Your task to perform on an android device: turn pop-ups on in chrome Image 0: 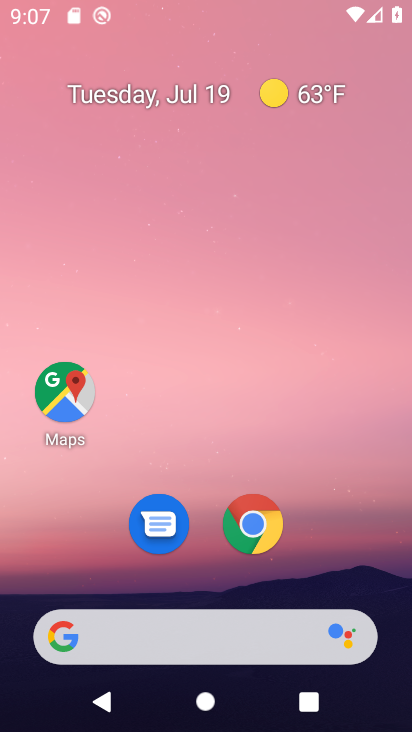
Step 0: press home button
Your task to perform on an android device: turn pop-ups on in chrome Image 1: 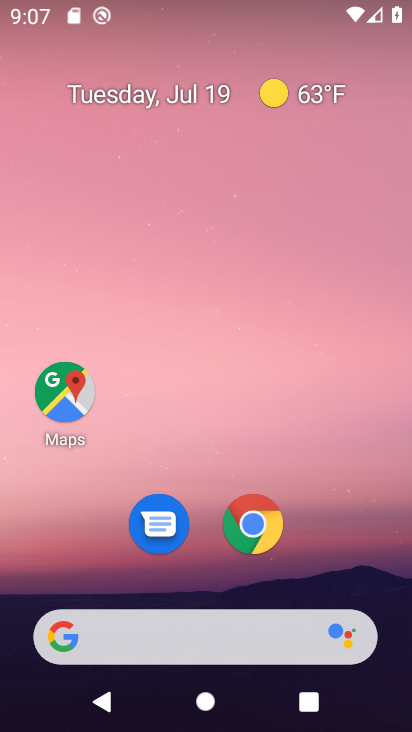
Step 1: click (252, 517)
Your task to perform on an android device: turn pop-ups on in chrome Image 2: 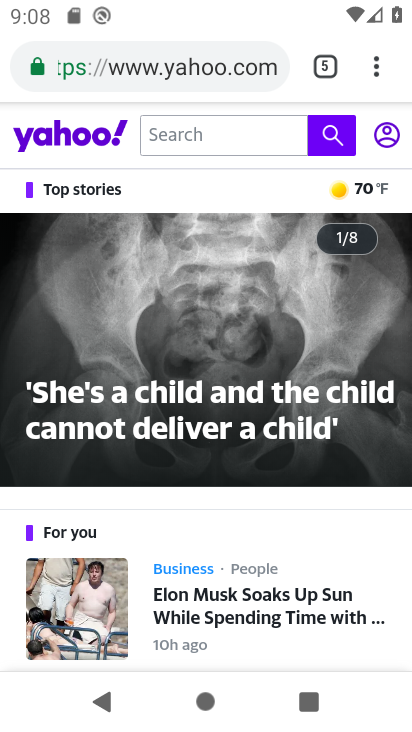
Step 2: drag from (374, 72) to (223, 524)
Your task to perform on an android device: turn pop-ups on in chrome Image 3: 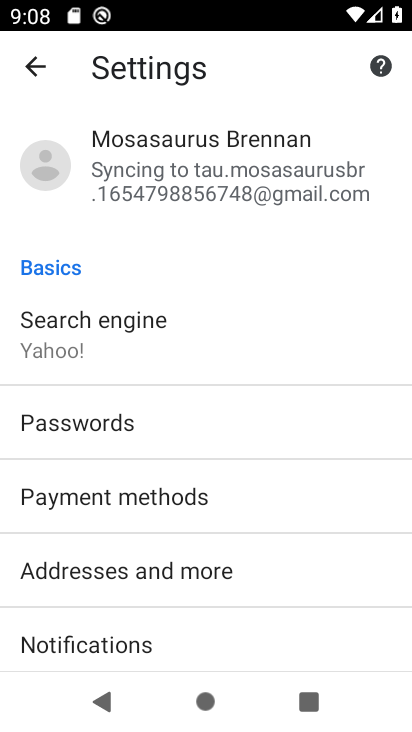
Step 3: drag from (237, 562) to (341, 160)
Your task to perform on an android device: turn pop-ups on in chrome Image 4: 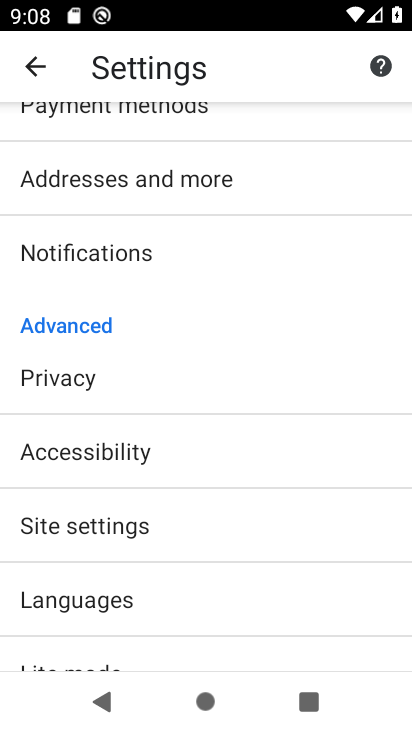
Step 4: click (112, 525)
Your task to perform on an android device: turn pop-ups on in chrome Image 5: 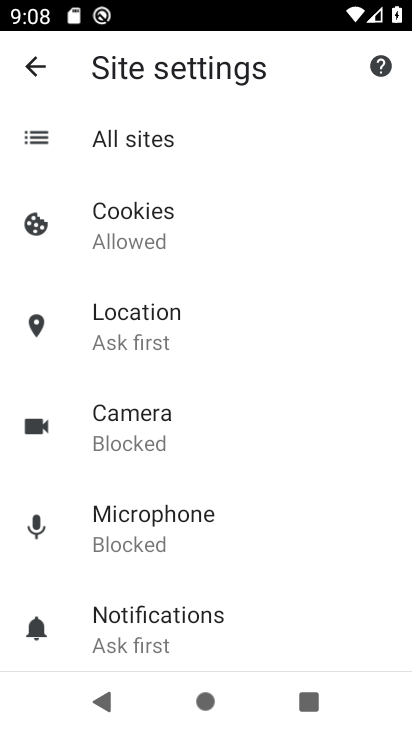
Step 5: drag from (251, 579) to (405, 114)
Your task to perform on an android device: turn pop-ups on in chrome Image 6: 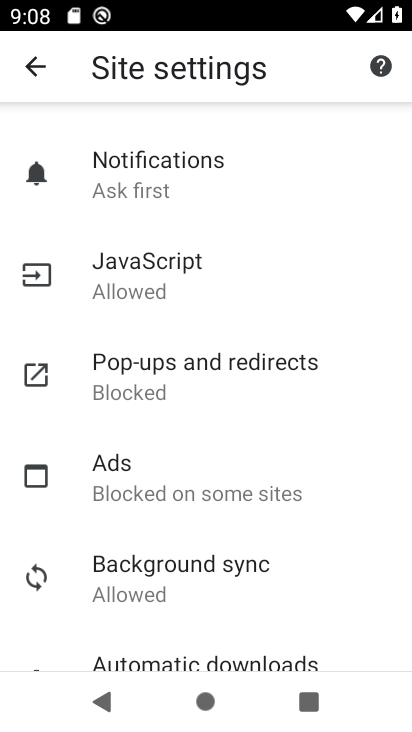
Step 6: click (192, 376)
Your task to perform on an android device: turn pop-ups on in chrome Image 7: 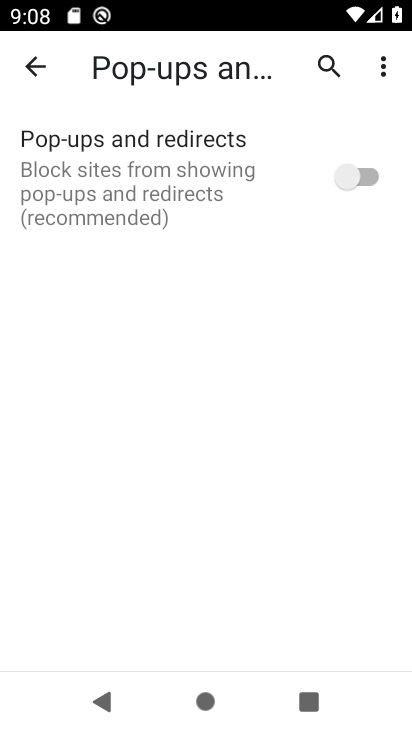
Step 7: click (360, 172)
Your task to perform on an android device: turn pop-ups on in chrome Image 8: 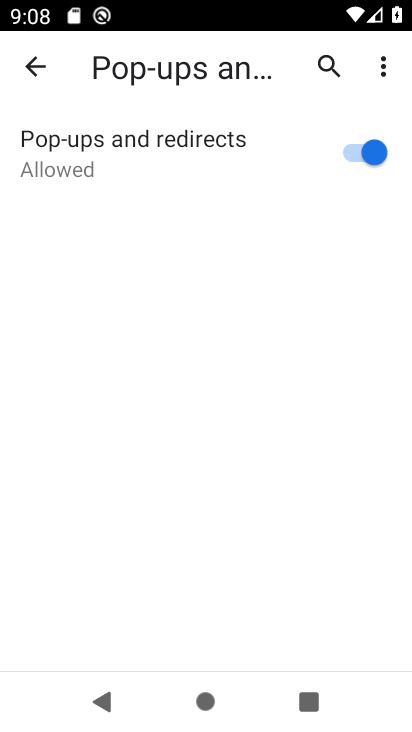
Step 8: task complete